Your task to perform on an android device: see sites visited before in the chrome app Image 0: 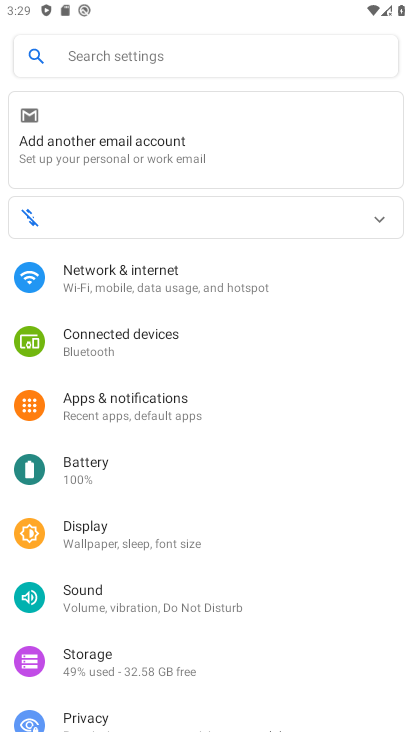
Step 0: press home button
Your task to perform on an android device: see sites visited before in the chrome app Image 1: 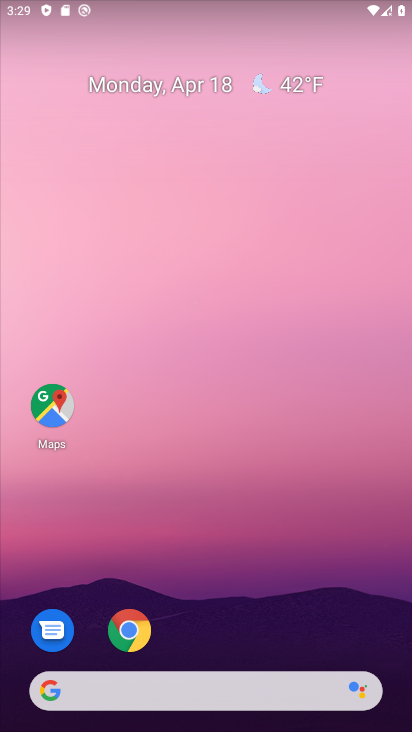
Step 1: click (217, 231)
Your task to perform on an android device: see sites visited before in the chrome app Image 2: 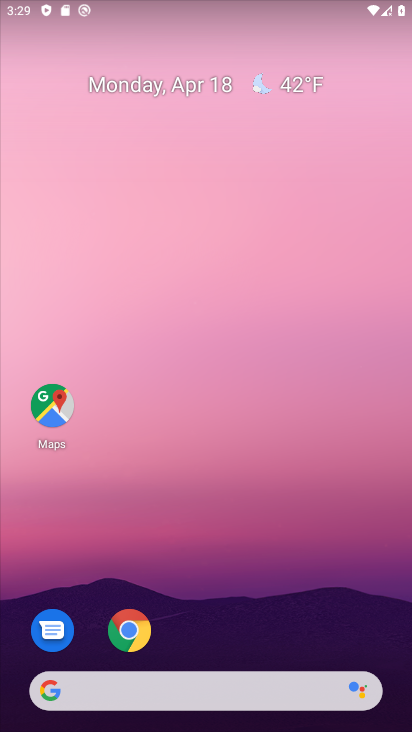
Step 2: drag from (243, 463) to (244, 340)
Your task to perform on an android device: see sites visited before in the chrome app Image 3: 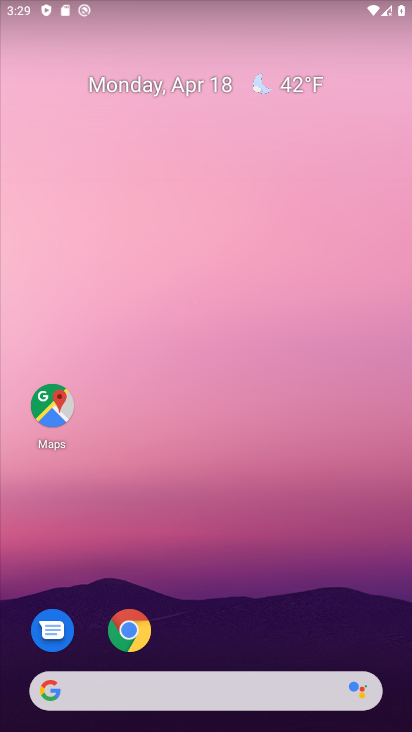
Step 3: drag from (261, 599) to (274, 251)
Your task to perform on an android device: see sites visited before in the chrome app Image 4: 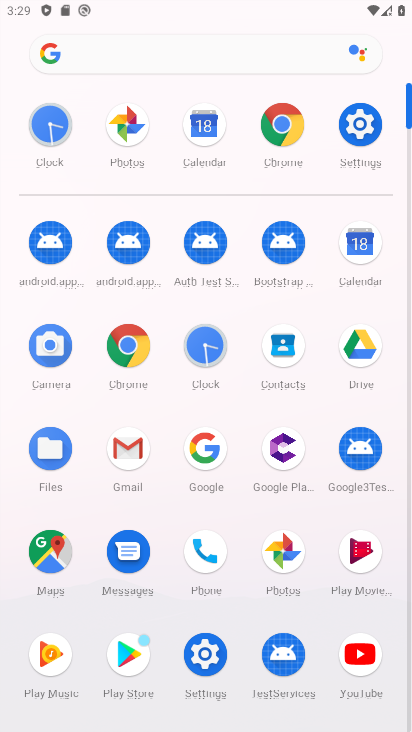
Step 4: click (292, 125)
Your task to perform on an android device: see sites visited before in the chrome app Image 5: 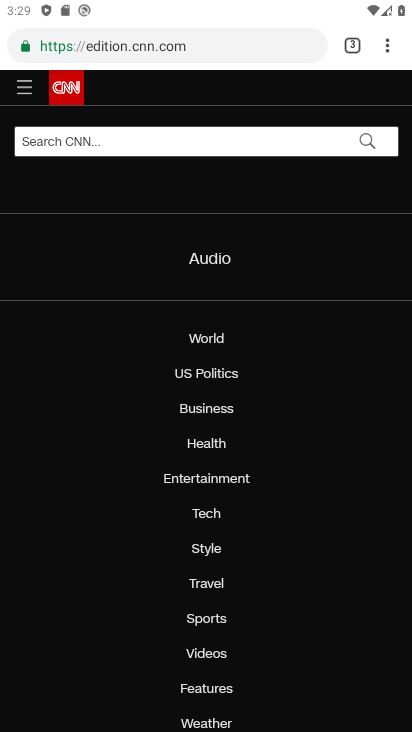
Step 5: click (385, 36)
Your task to perform on an android device: see sites visited before in the chrome app Image 6: 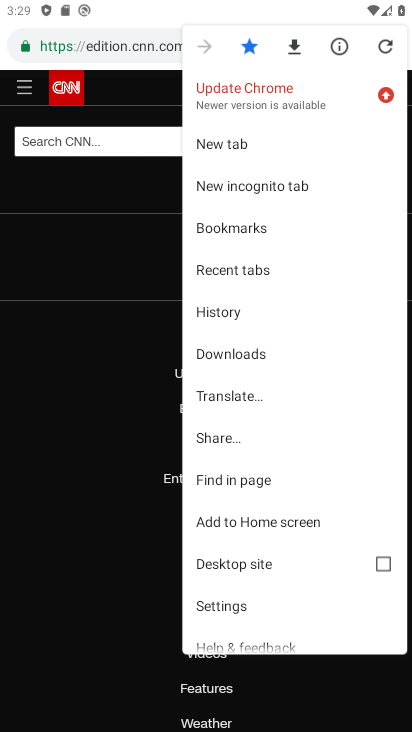
Step 6: click (245, 305)
Your task to perform on an android device: see sites visited before in the chrome app Image 7: 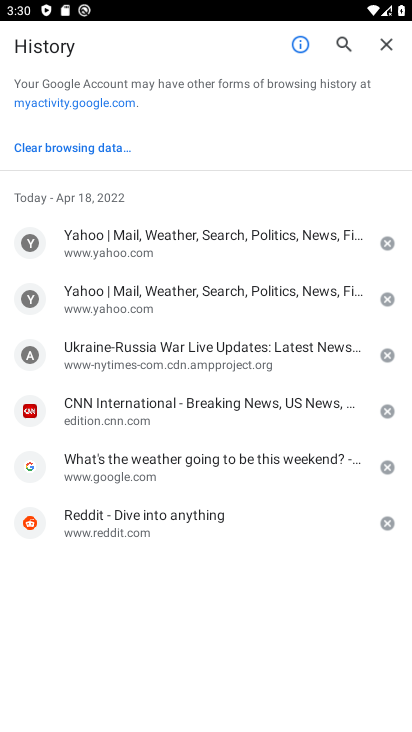
Step 7: task complete